Your task to perform on an android device: Go to notification settings Image 0: 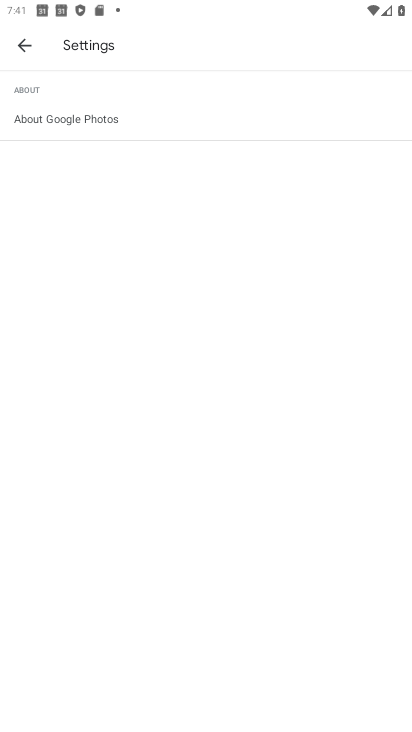
Step 0: press home button
Your task to perform on an android device: Go to notification settings Image 1: 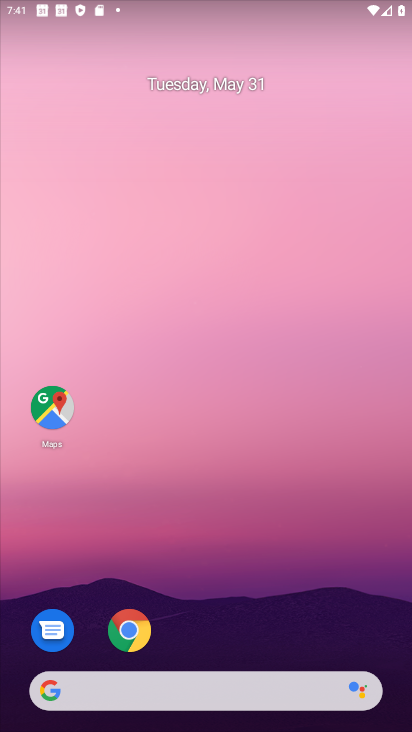
Step 1: drag from (191, 631) to (256, 221)
Your task to perform on an android device: Go to notification settings Image 2: 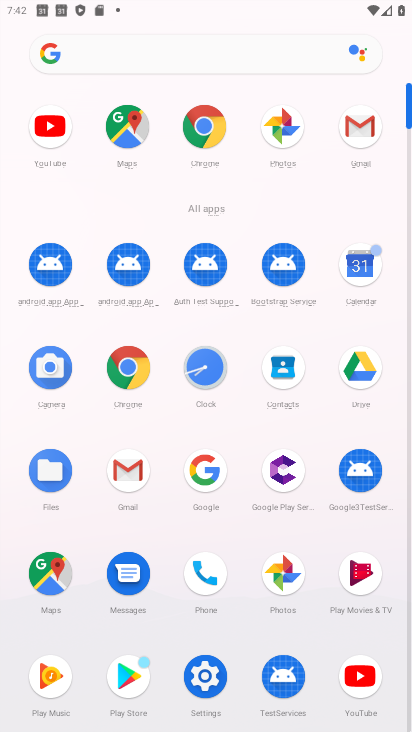
Step 2: drag from (244, 530) to (238, 289)
Your task to perform on an android device: Go to notification settings Image 3: 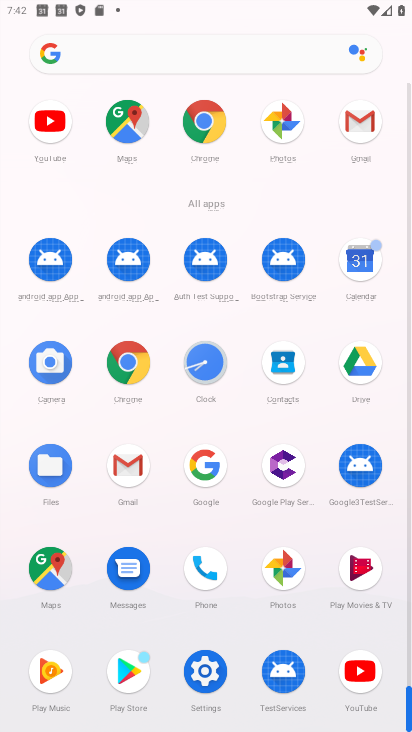
Step 3: click (203, 679)
Your task to perform on an android device: Go to notification settings Image 4: 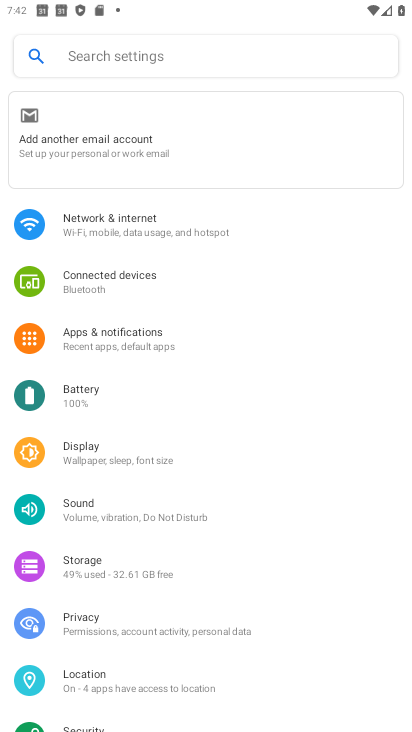
Step 4: click (153, 224)
Your task to perform on an android device: Go to notification settings Image 5: 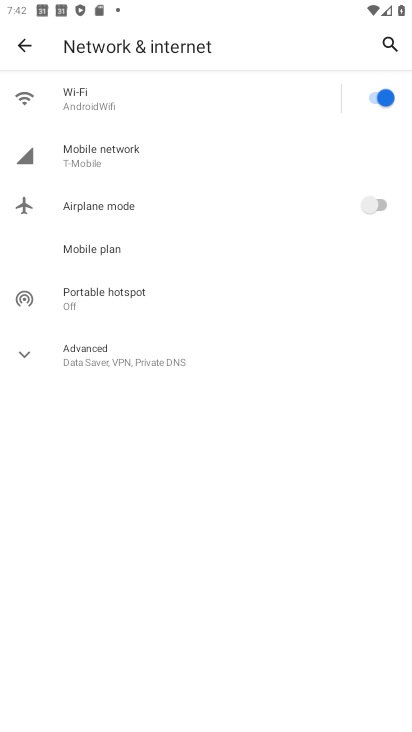
Step 5: task complete